Your task to perform on an android device: What is the recent news? Image 0: 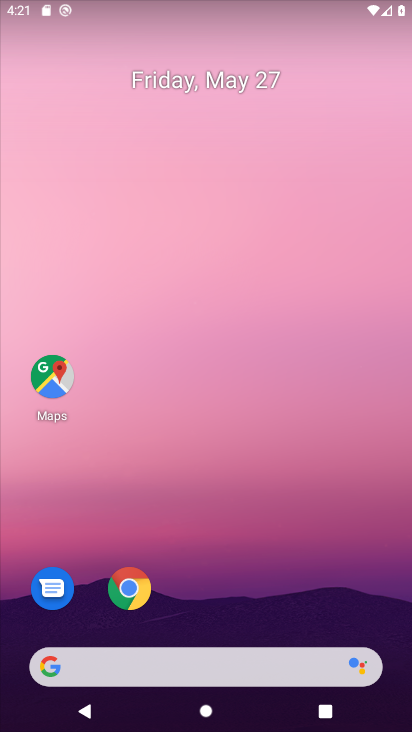
Step 0: click (182, 675)
Your task to perform on an android device: What is the recent news? Image 1: 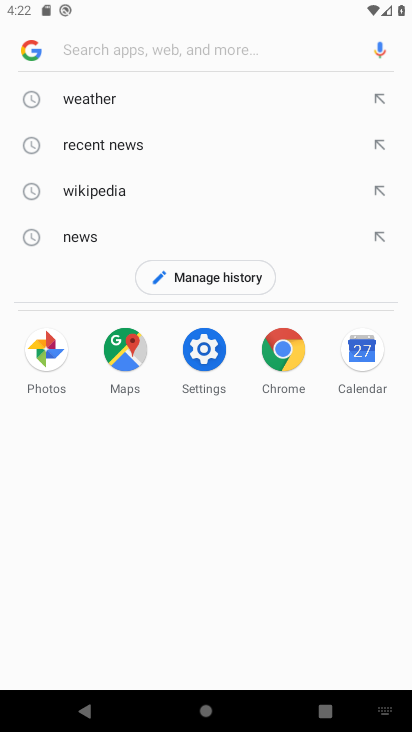
Step 1: click (181, 136)
Your task to perform on an android device: What is the recent news? Image 2: 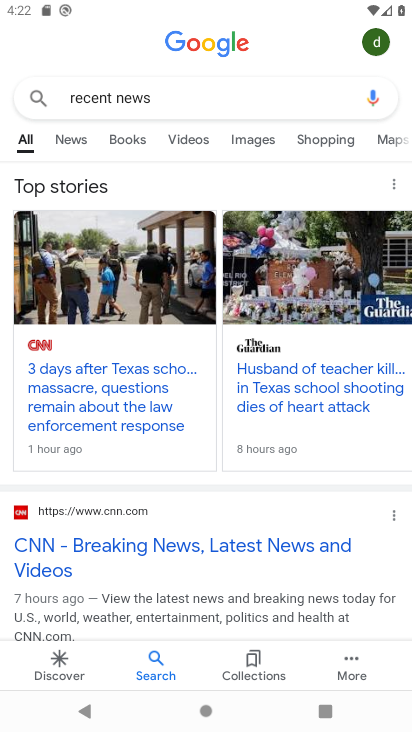
Step 2: task complete